Your task to perform on an android device: allow notifications from all sites in the chrome app Image 0: 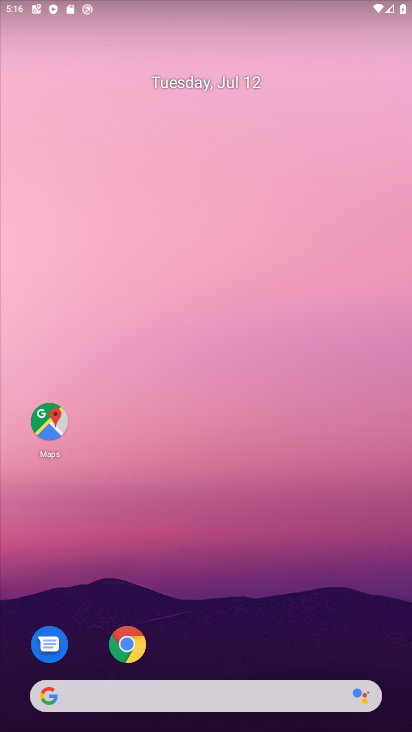
Step 0: press home button
Your task to perform on an android device: allow notifications from all sites in the chrome app Image 1: 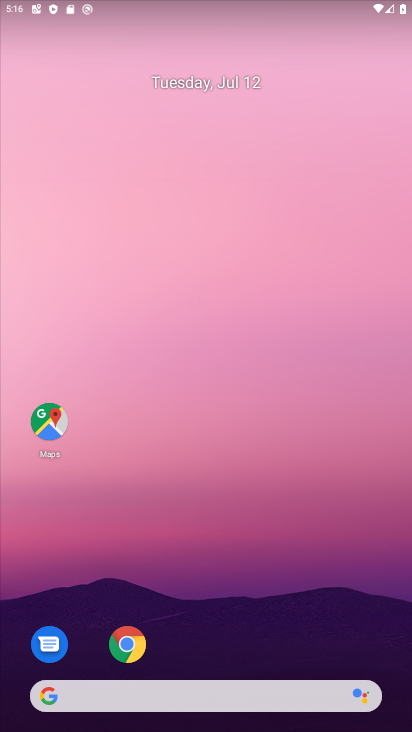
Step 1: press home button
Your task to perform on an android device: allow notifications from all sites in the chrome app Image 2: 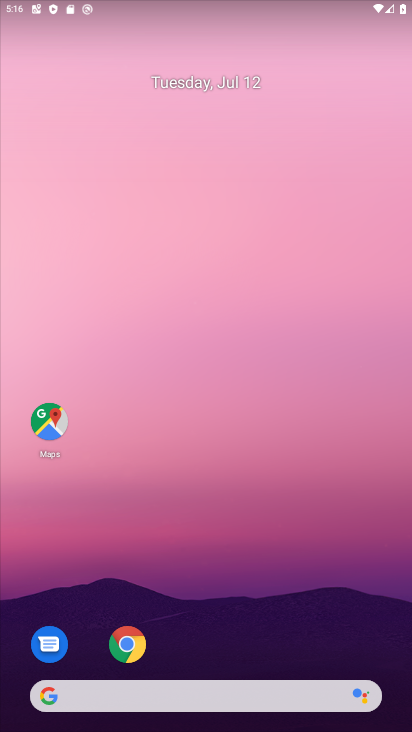
Step 2: click (138, 647)
Your task to perform on an android device: allow notifications from all sites in the chrome app Image 3: 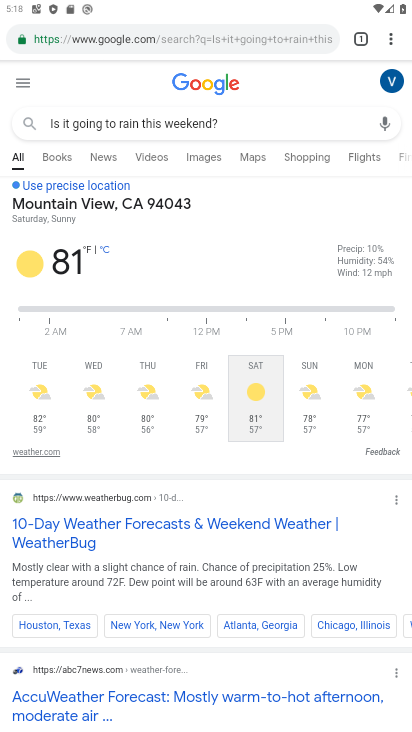
Step 3: task complete